Your task to perform on an android device: Open Yahoo.com Image 0: 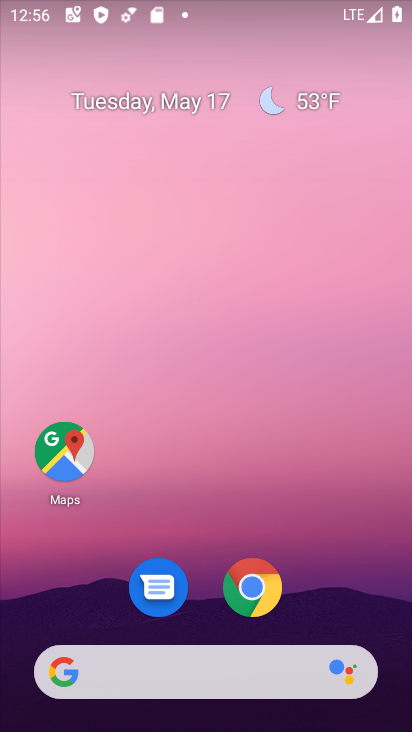
Step 0: click (234, 605)
Your task to perform on an android device: Open Yahoo.com Image 1: 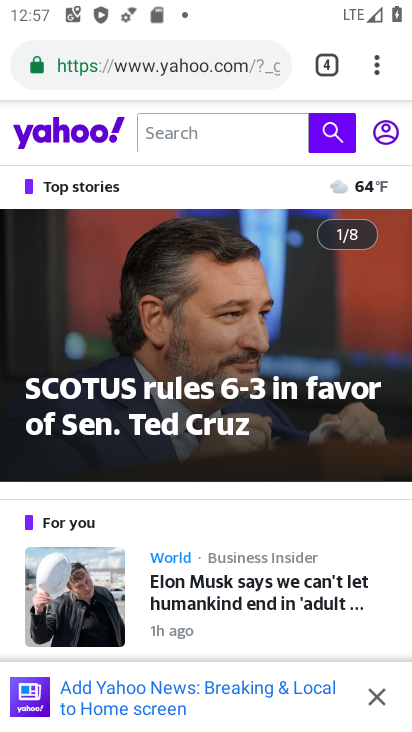
Step 1: task complete